Your task to perform on an android device: open chrome privacy settings Image 0: 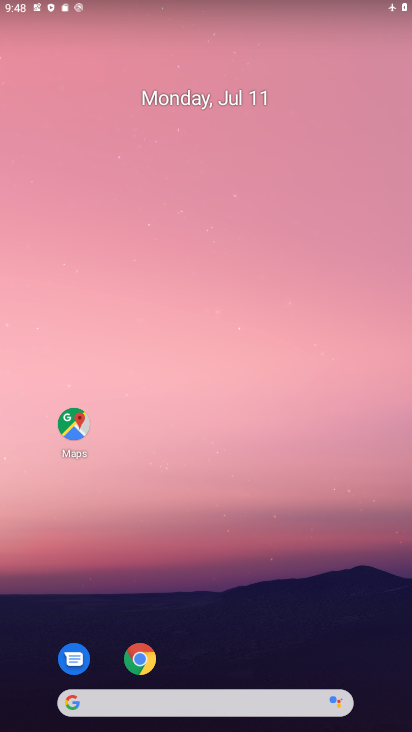
Step 0: drag from (208, 696) to (208, 123)
Your task to perform on an android device: open chrome privacy settings Image 1: 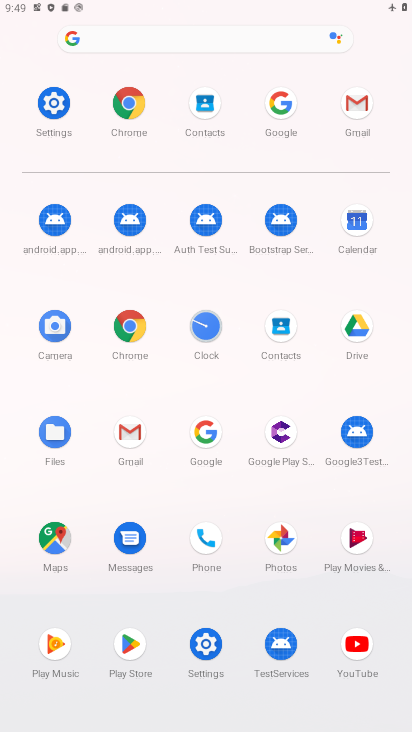
Step 1: click (126, 327)
Your task to perform on an android device: open chrome privacy settings Image 2: 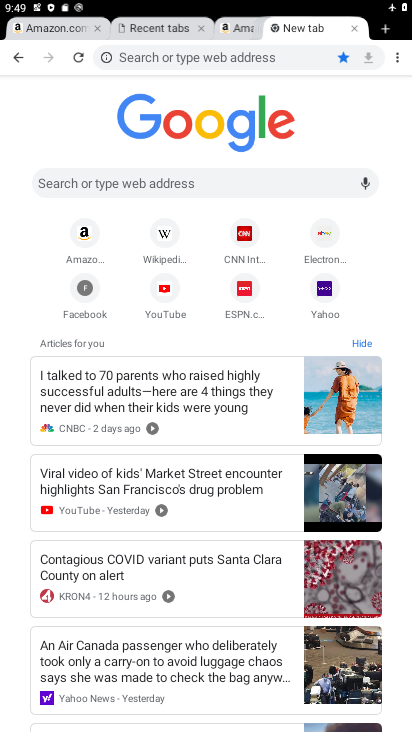
Step 2: click (398, 57)
Your task to perform on an android device: open chrome privacy settings Image 3: 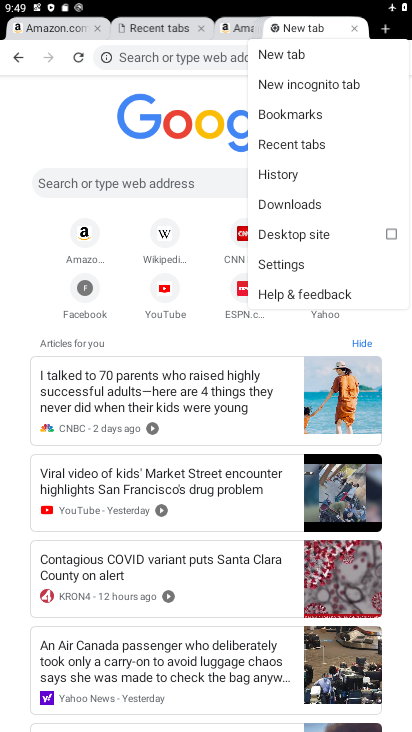
Step 3: click (278, 263)
Your task to perform on an android device: open chrome privacy settings Image 4: 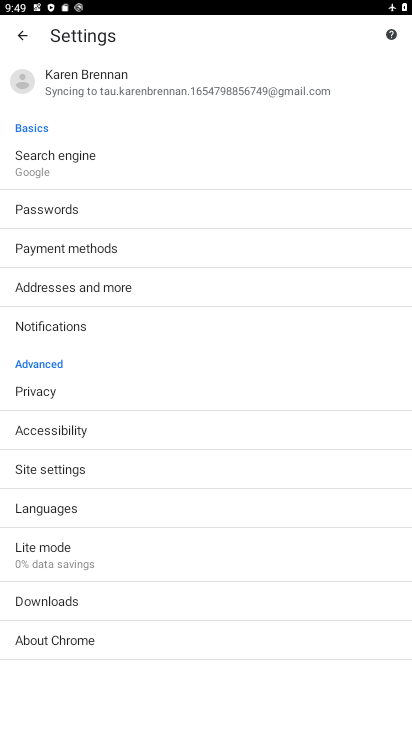
Step 4: click (42, 393)
Your task to perform on an android device: open chrome privacy settings Image 5: 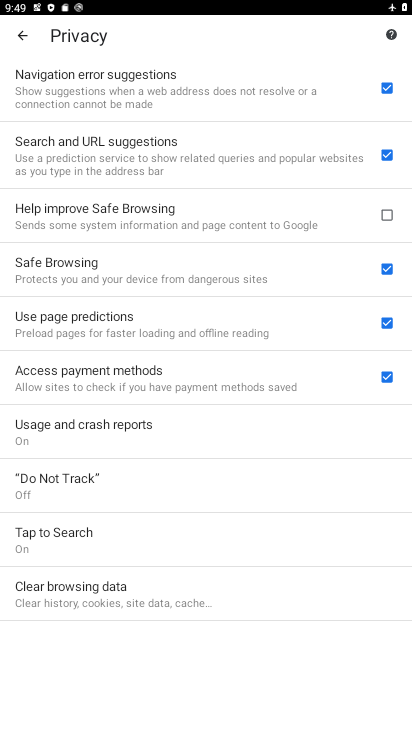
Step 5: task complete